Your task to perform on an android device: When is my next meeting? Image 0: 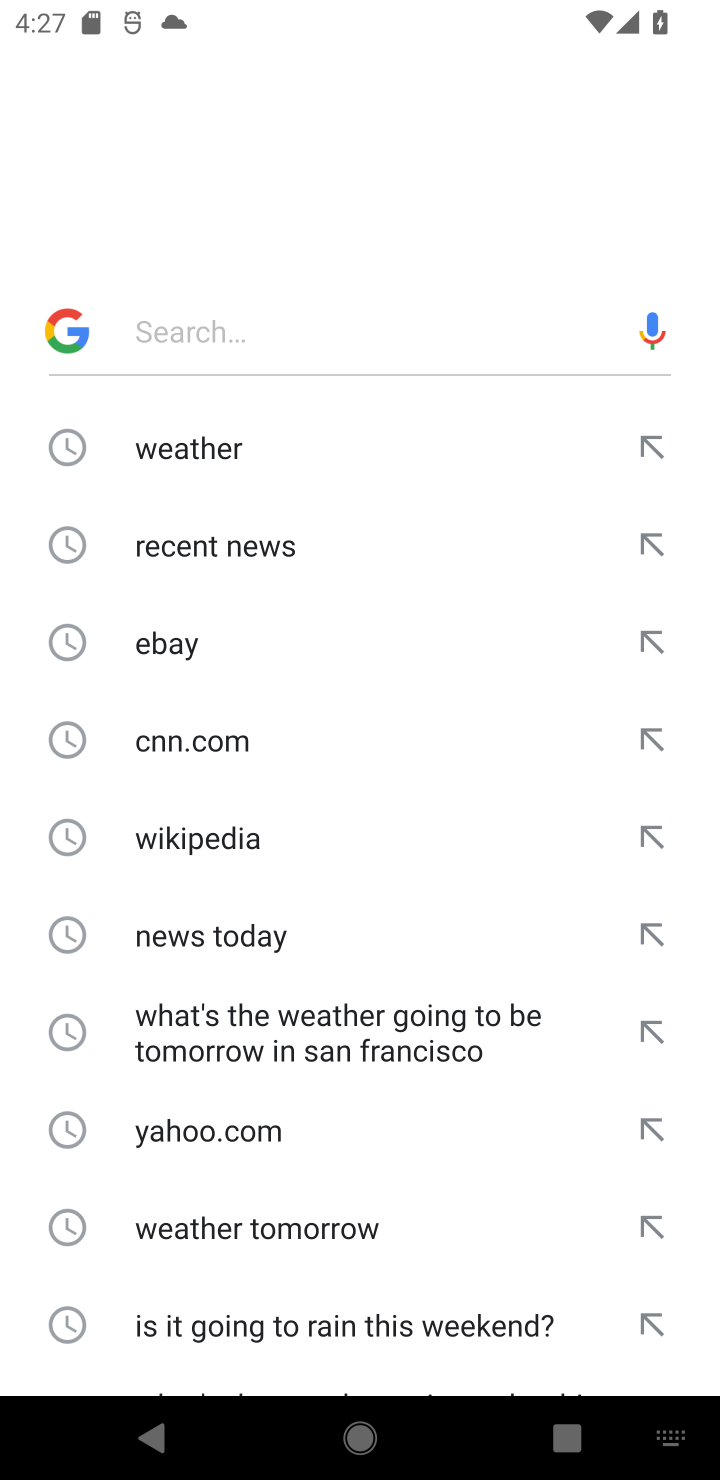
Step 0: press back button
Your task to perform on an android device: When is my next meeting? Image 1: 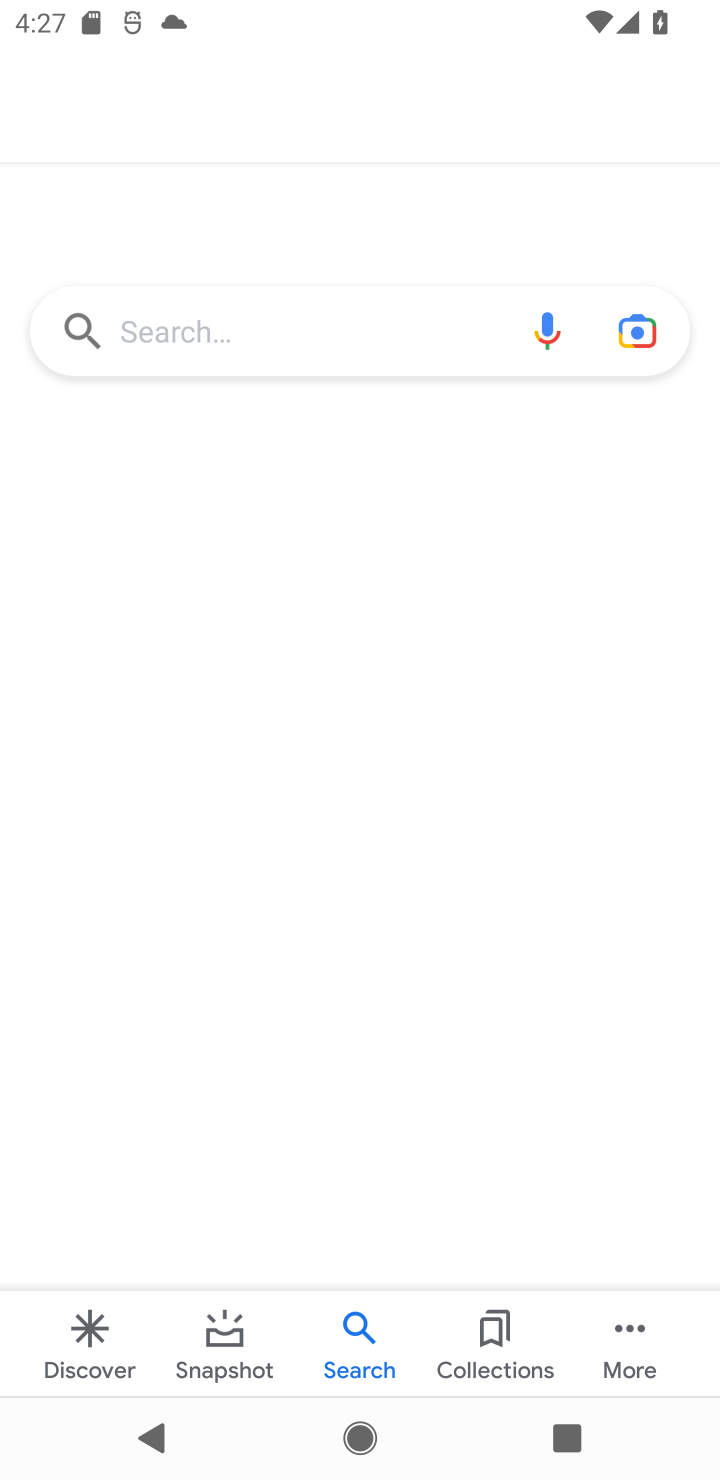
Step 1: press back button
Your task to perform on an android device: When is my next meeting? Image 2: 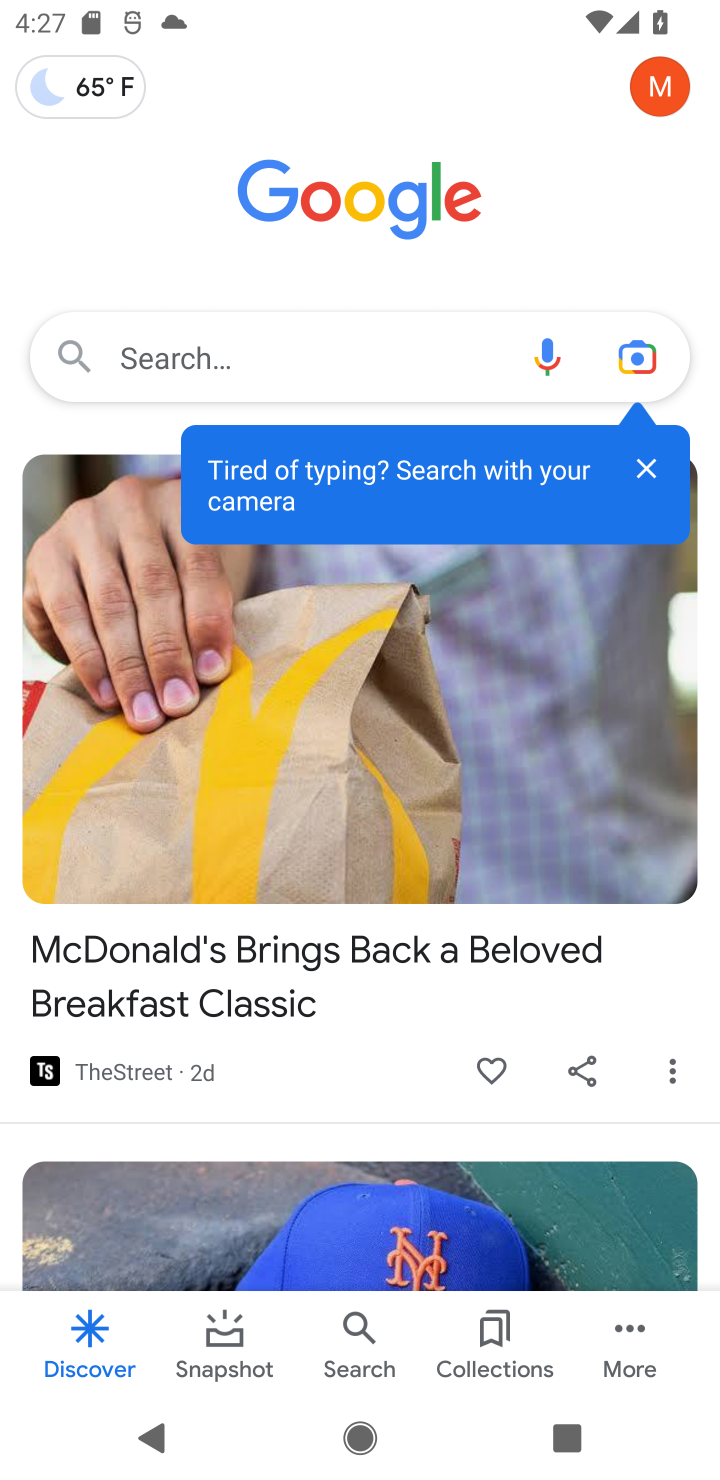
Step 2: press back button
Your task to perform on an android device: When is my next meeting? Image 3: 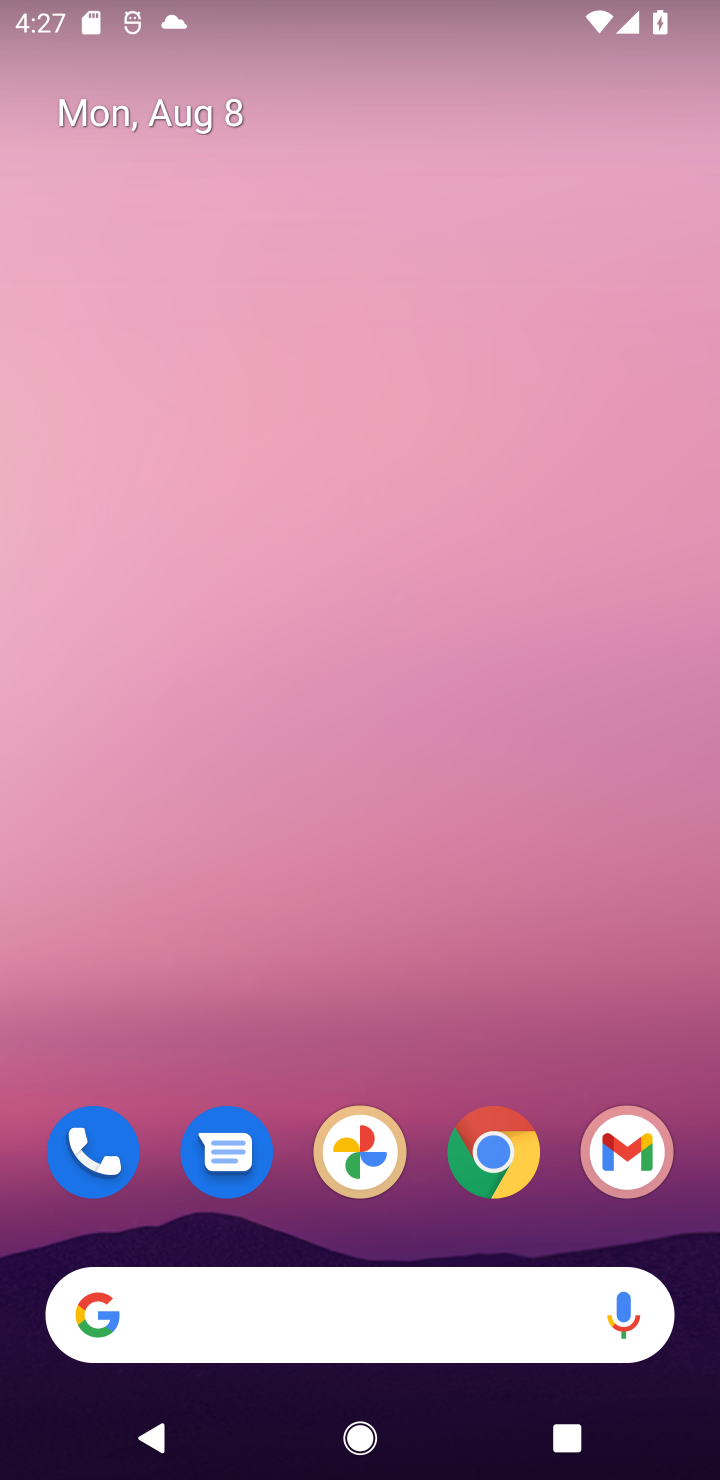
Step 3: drag from (298, 1079) to (326, 1)
Your task to perform on an android device: When is my next meeting? Image 4: 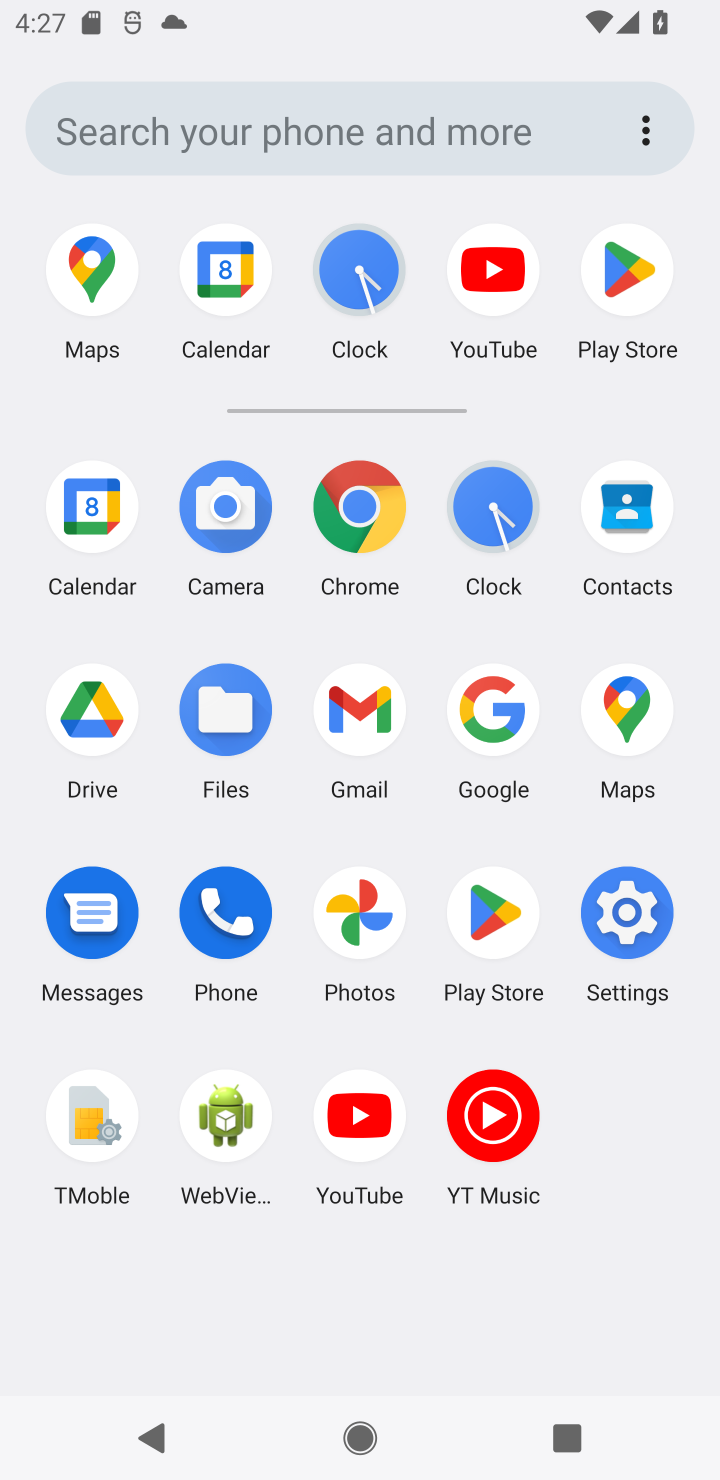
Step 4: click (82, 531)
Your task to perform on an android device: When is my next meeting? Image 5: 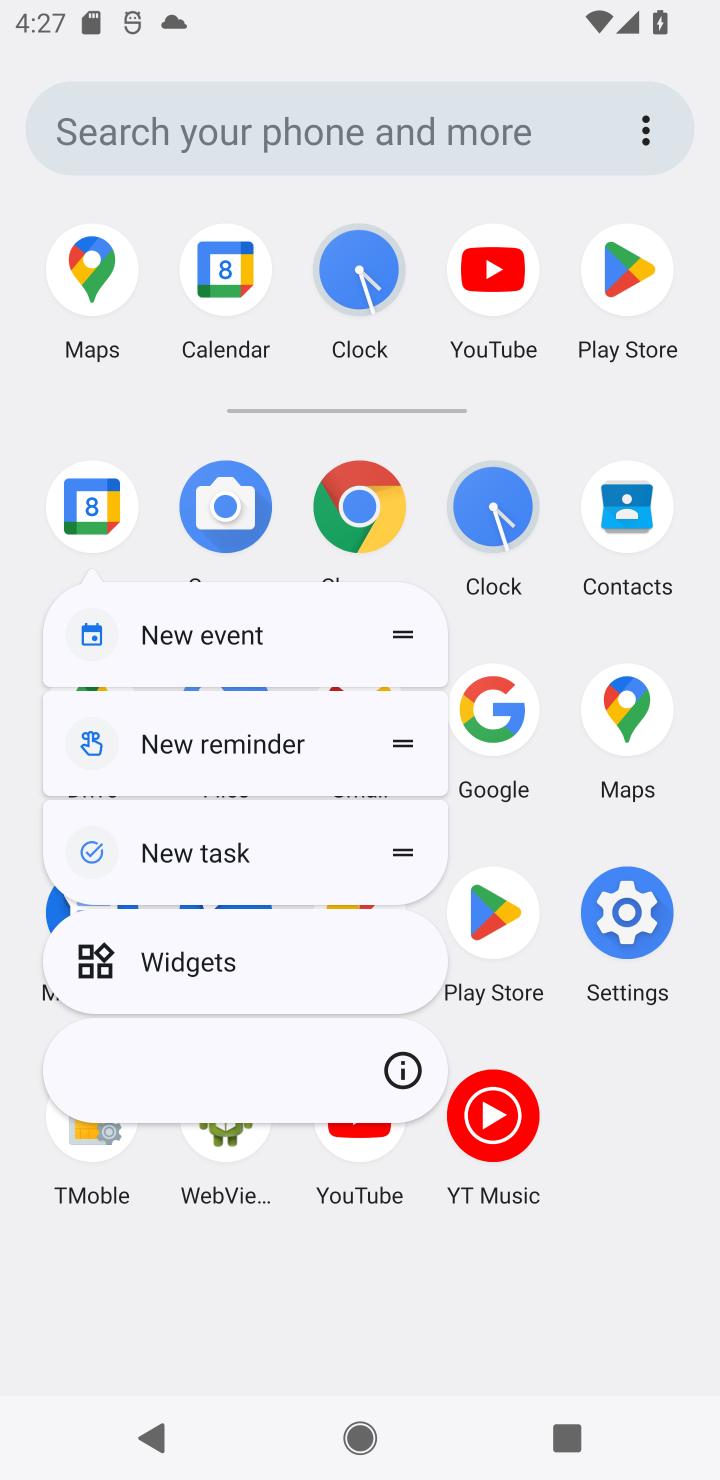
Step 5: click (146, 516)
Your task to perform on an android device: When is my next meeting? Image 6: 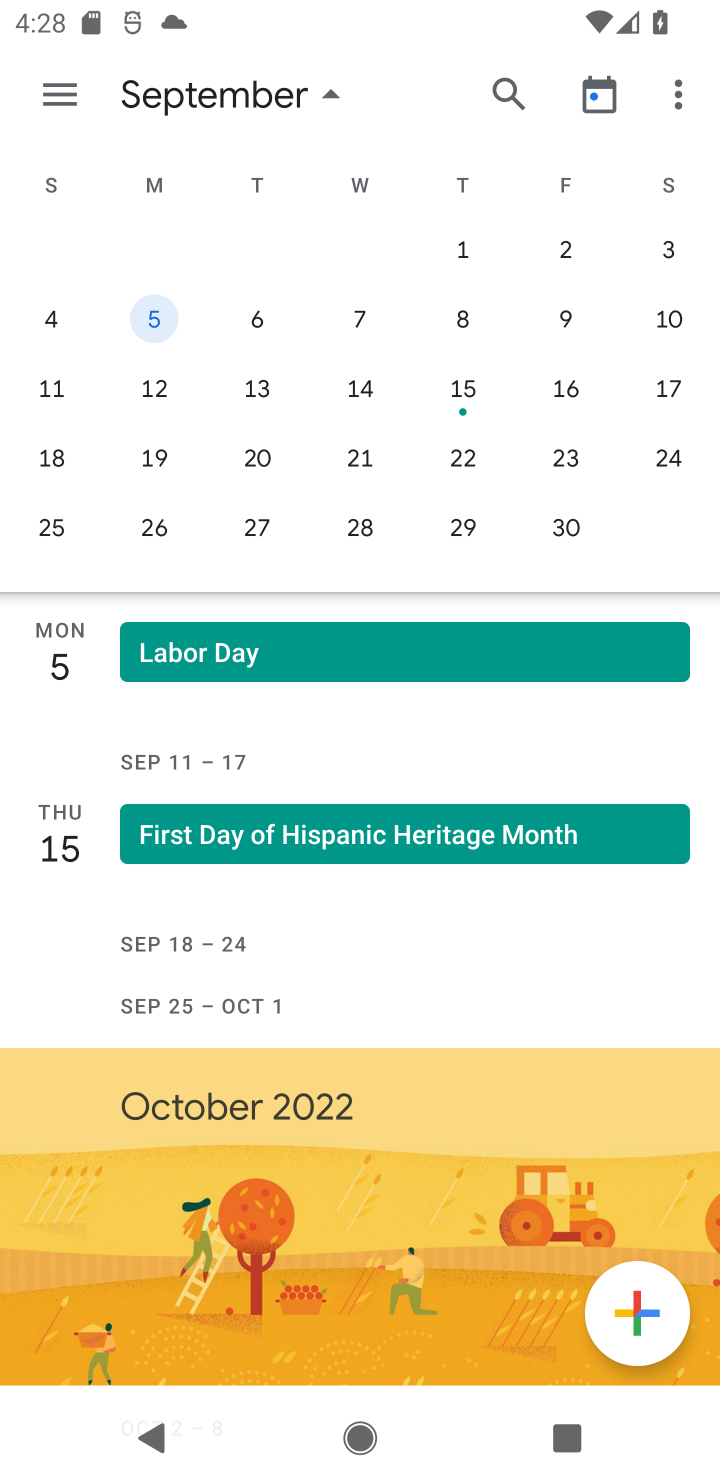
Step 6: drag from (44, 390) to (684, 405)
Your task to perform on an android device: When is my next meeting? Image 7: 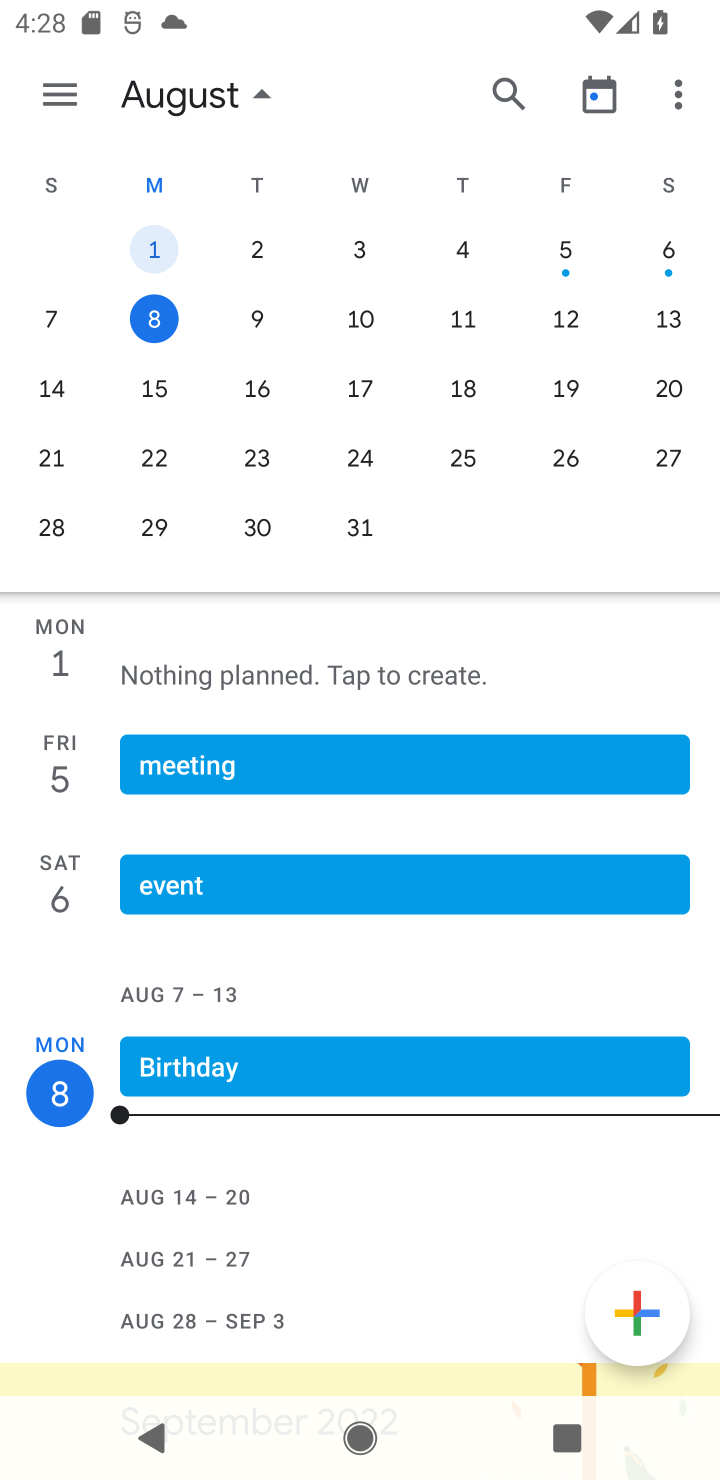
Step 7: click (155, 318)
Your task to perform on an android device: When is my next meeting? Image 8: 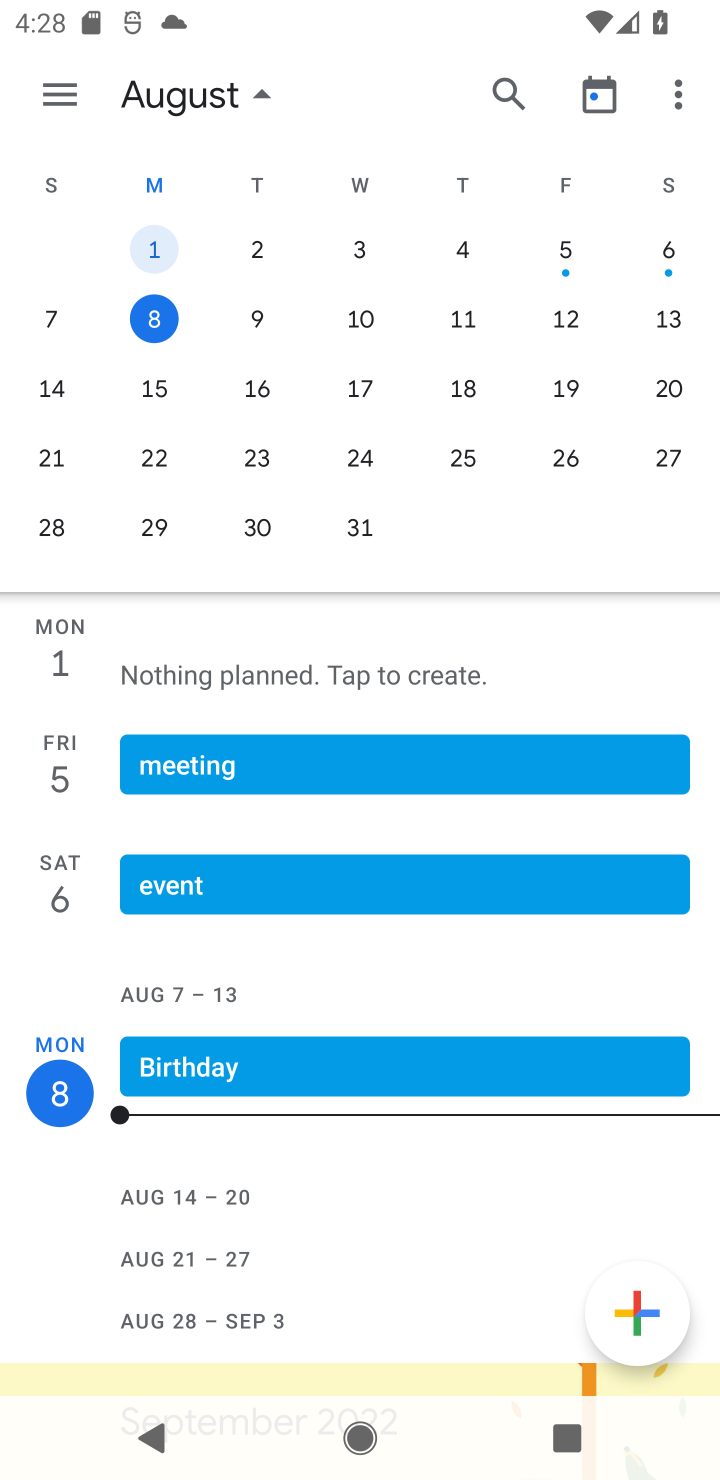
Step 8: task complete